Your task to perform on an android device: add a contact in the contacts app Image 0: 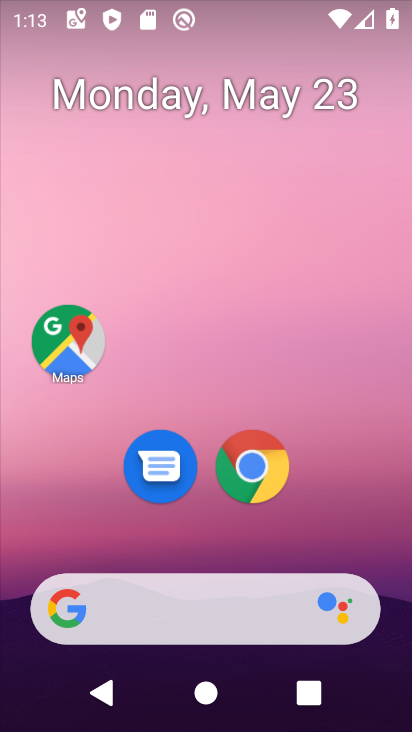
Step 0: drag from (344, 536) to (302, 5)
Your task to perform on an android device: add a contact in the contacts app Image 1: 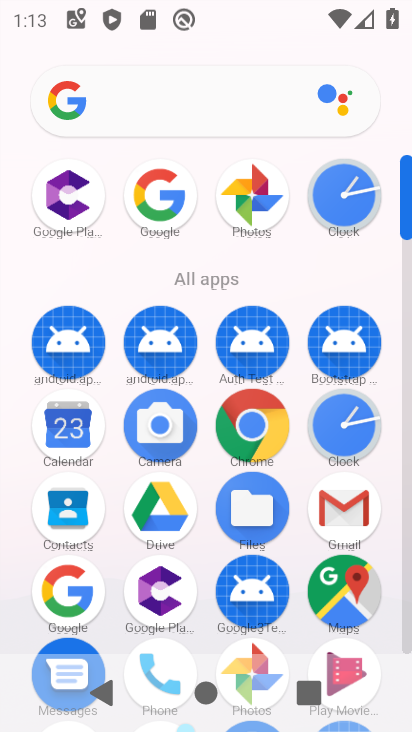
Step 1: click (69, 510)
Your task to perform on an android device: add a contact in the contacts app Image 2: 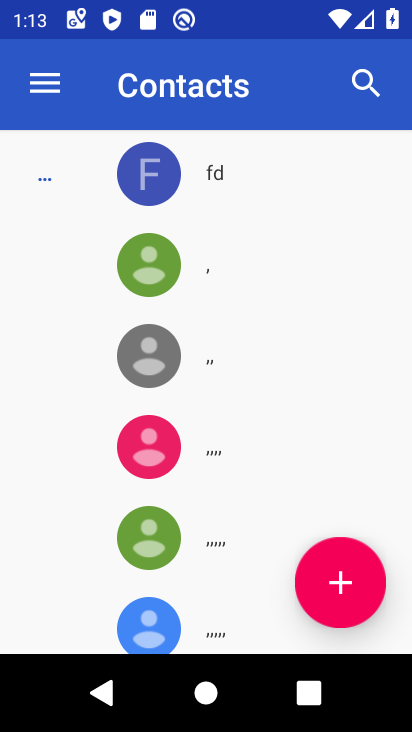
Step 2: click (342, 573)
Your task to perform on an android device: add a contact in the contacts app Image 3: 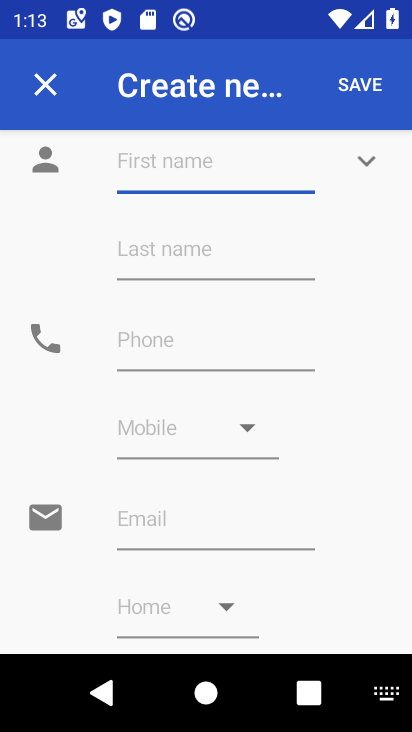
Step 3: click (170, 172)
Your task to perform on an android device: add a contact in the contacts app Image 4: 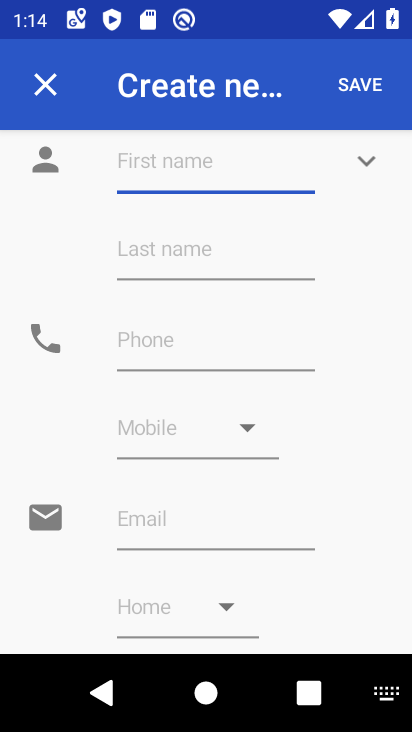
Step 4: type "Shatrughna Sinha"
Your task to perform on an android device: add a contact in the contacts app Image 5: 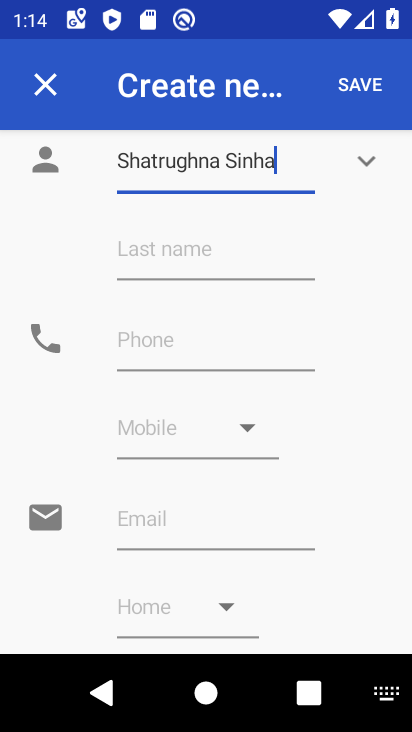
Step 5: click (159, 353)
Your task to perform on an android device: add a contact in the contacts app Image 6: 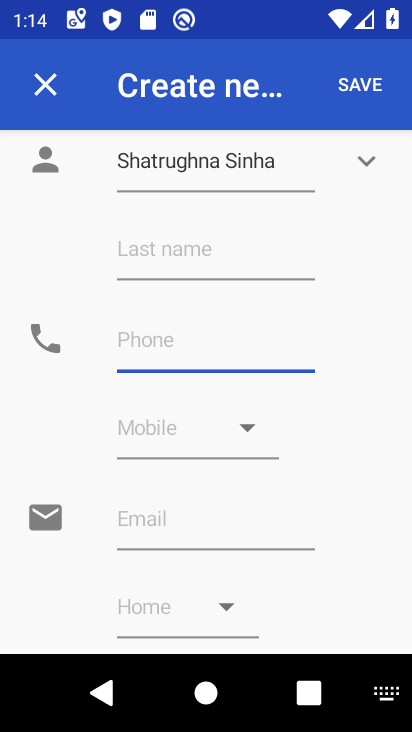
Step 6: type "0987654321"
Your task to perform on an android device: add a contact in the contacts app Image 7: 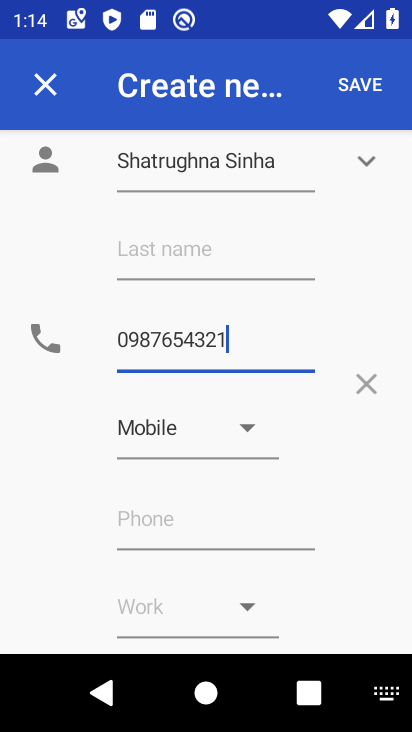
Step 7: click (369, 88)
Your task to perform on an android device: add a contact in the contacts app Image 8: 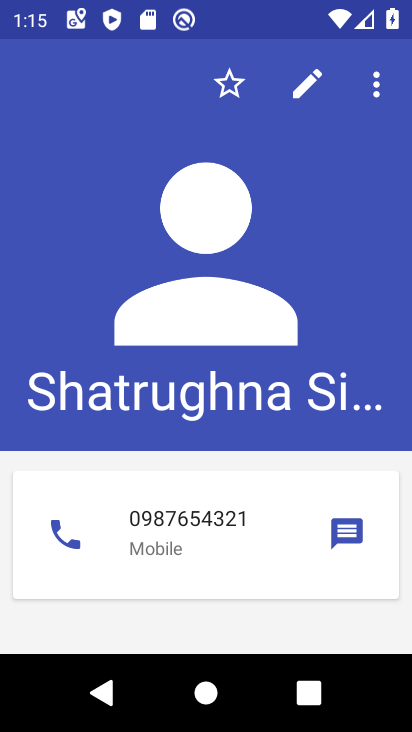
Step 8: task complete